Your task to perform on an android device: change text size in settings app Image 0: 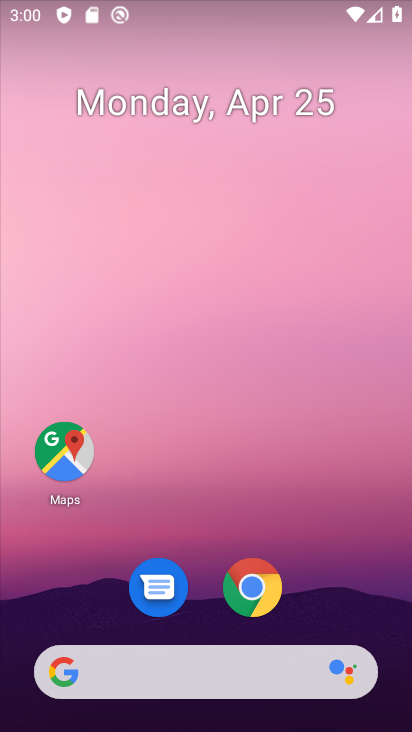
Step 0: drag from (321, 586) to (286, 134)
Your task to perform on an android device: change text size in settings app Image 1: 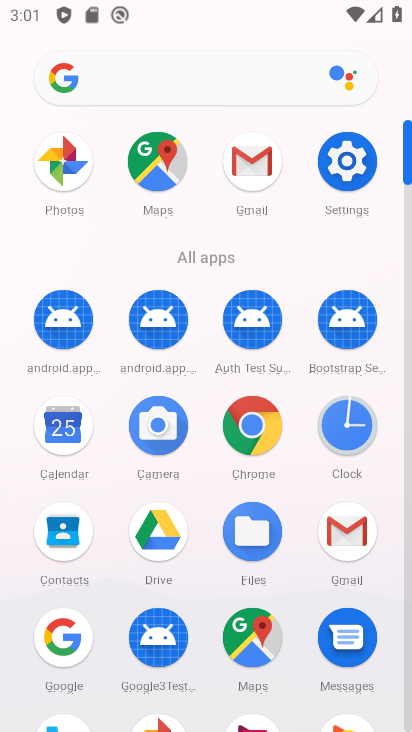
Step 1: click (338, 158)
Your task to perform on an android device: change text size in settings app Image 2: 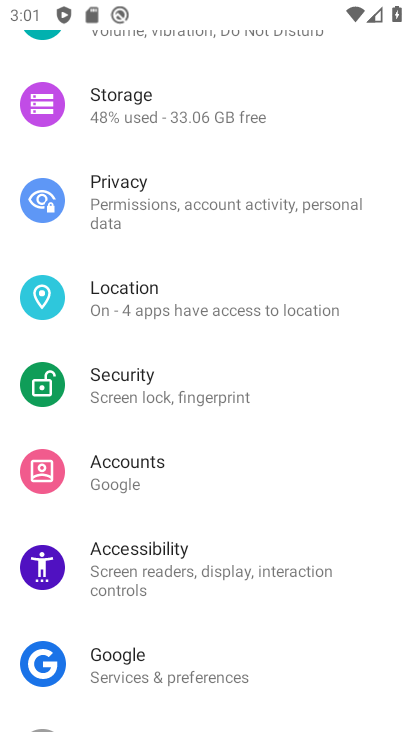
Step 2: drag from (188, 130) to (151, 699)
Your task to perform on an android device: change text size in settings app Image 3: 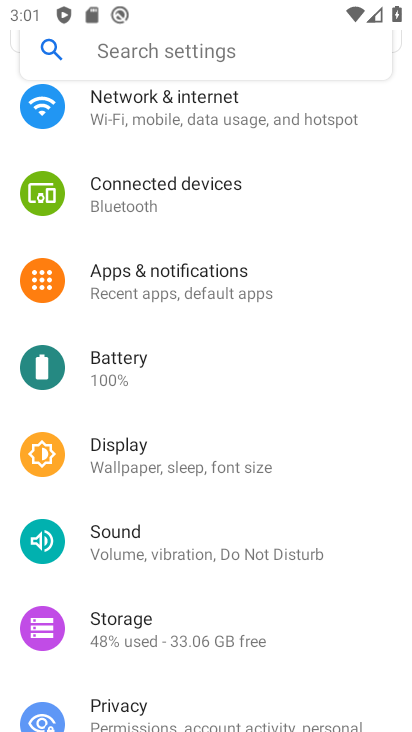
Step 3: drag from (157, 602) to (170, 337)
Your task to perform on an android device: change text size in settings app Image 4: 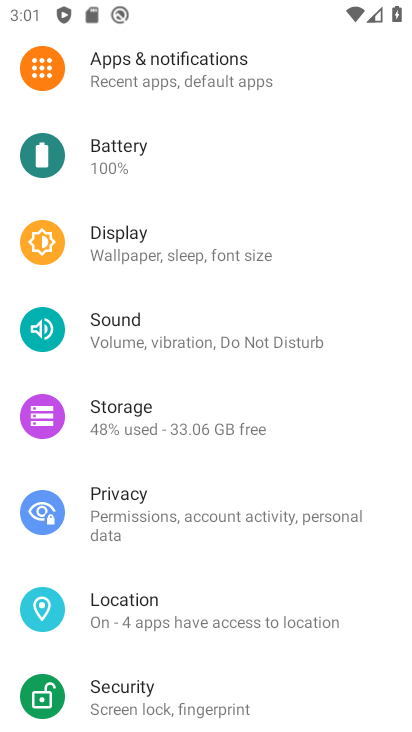
Step 4: click (245, 249)
Your task to perform on an android device: change text size in settings app Image 5: 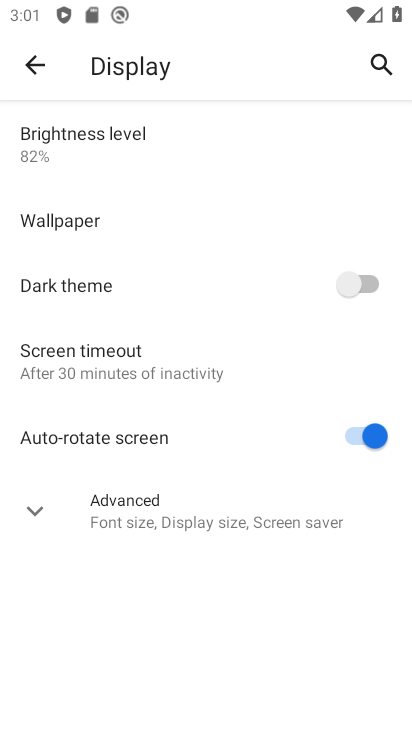
Step 5: click (66, 516)
Your task to perform on an android device: change text size in settings app Image 6: 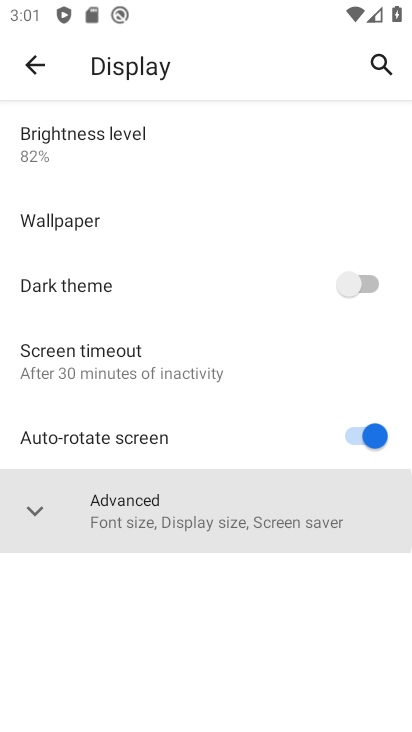
Step 6: click (66, 516)
Your task to perform on an android device: change text size in settings app Image 7: 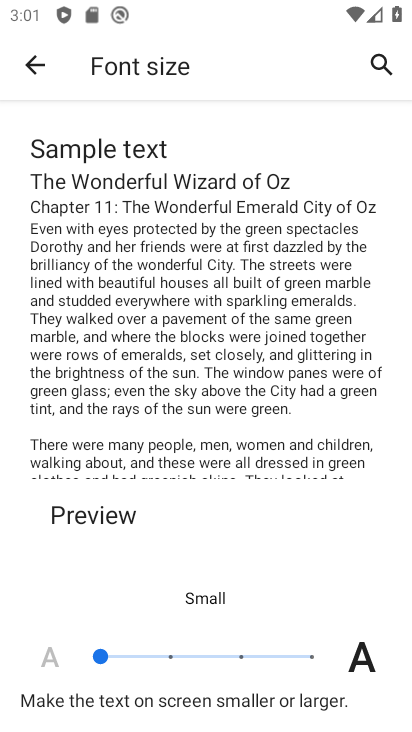
Step 7: click (373, 653)
Your task to perform on an android device: change text size in settings app Image 8: 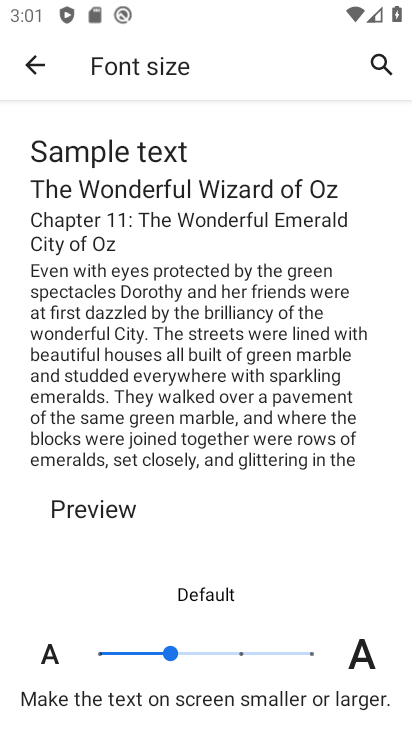
Step 8: task complete